Your task to perform on an android device: allow cookies in the chrome app Image 0: 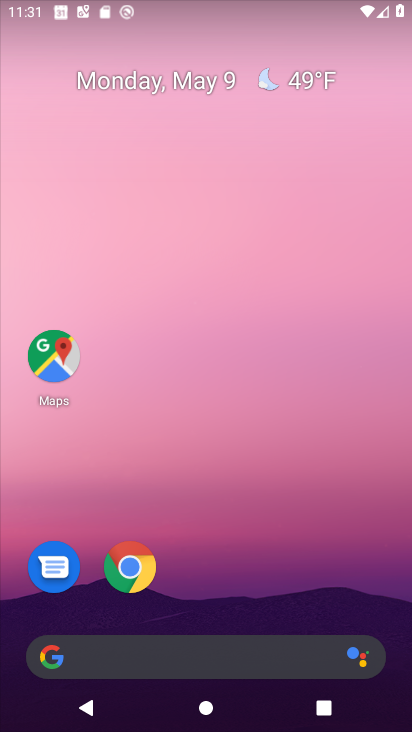
Step 0: click (130, 572)
Your task to perform on an android device: allow cookies in the chrome app Image 1: 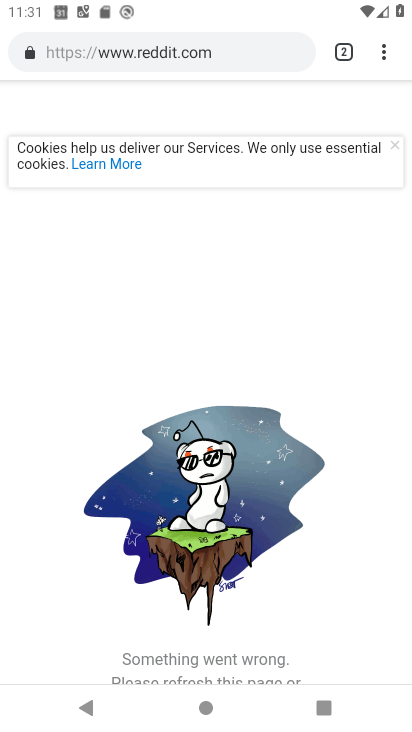
Step 1: click (379, 62)
Your task to perform on an android device: allow cookies in the chrome app Image 2: 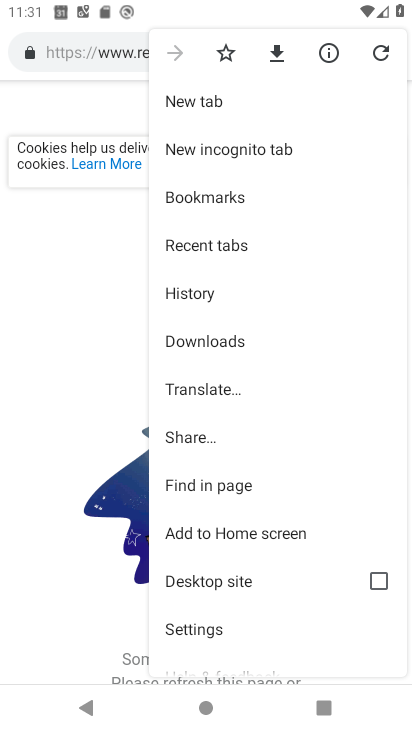
Step 2: click (197, 630)
Your task to perform on an android device: allow cookies in the chrome app Image 3: 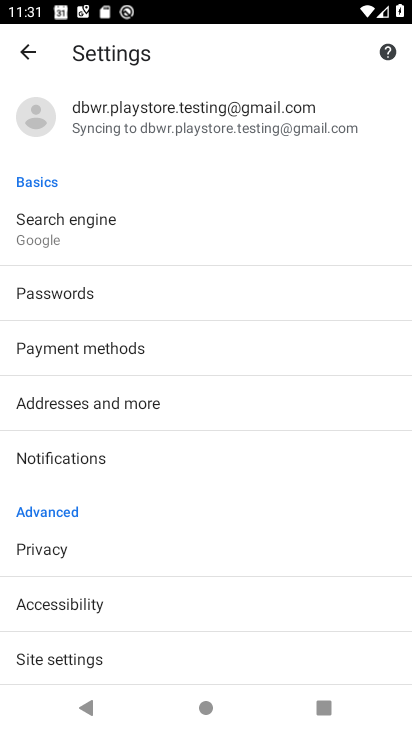
Step 3: click (89, 657)
Your task to perform on an android device: allow cookies in the chrome app Image 4: 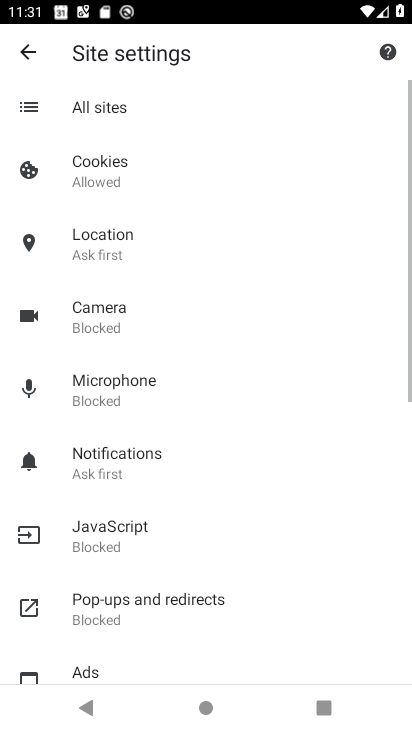
Step 4: click (144, 174)
Your task to perform on an android device: allow cookies in the chrome app Image 5: 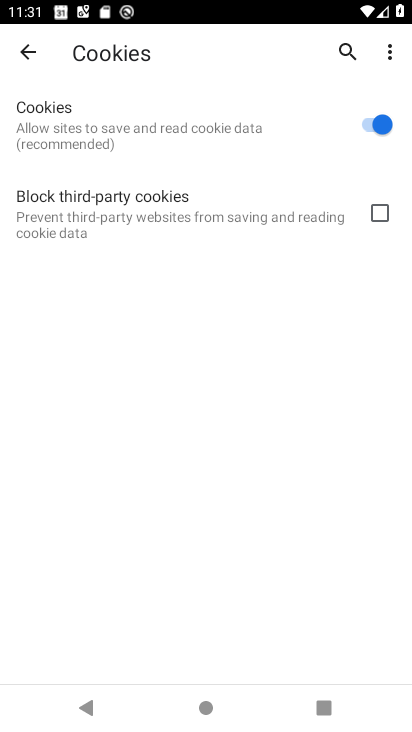
Step 5: task complete